Your task to perform on an android device: add a contact in the contacts app Image 0: 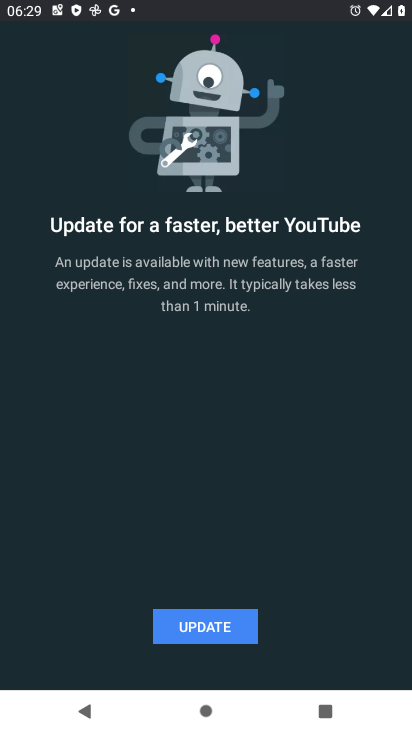
Step 0: press back button
Your task to perform on an android device: add a contact in the contacts app Image 1: 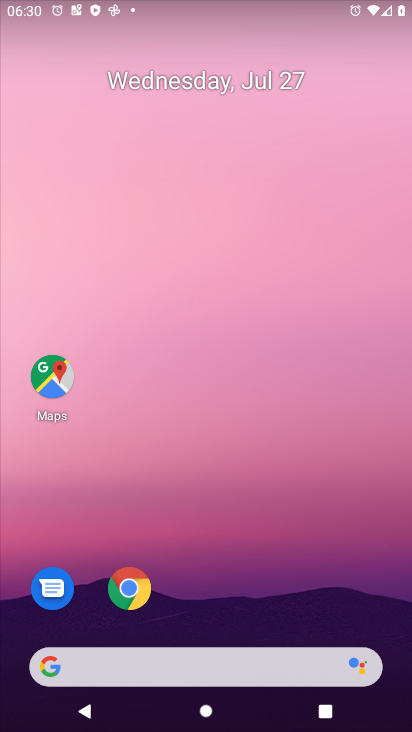
Step 1: drag from (188, 420) to (182, 125)
Your task to perform on an android device: add a contact in the contacts app Image 2: 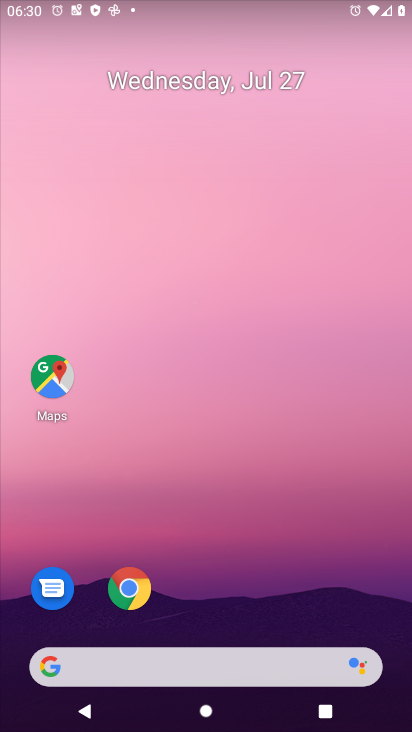
Step 2: drag from (155, 475) to (131, 79)
Your task to perform on an android device: add a contact in the contacts app Image 3: 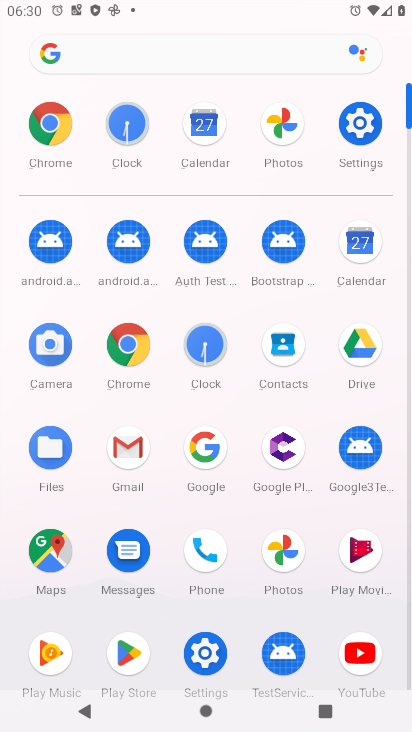
Step 3: click (282, 359)
Your task to perform on an android device: add a contact in the contacts app Image 4: 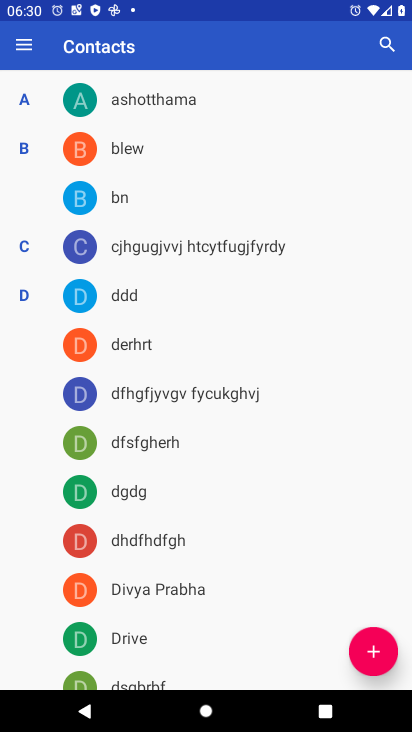
Step 4: click (363, 648)
Your task to perform on an android device: add a contact in the contacts app Image 5: 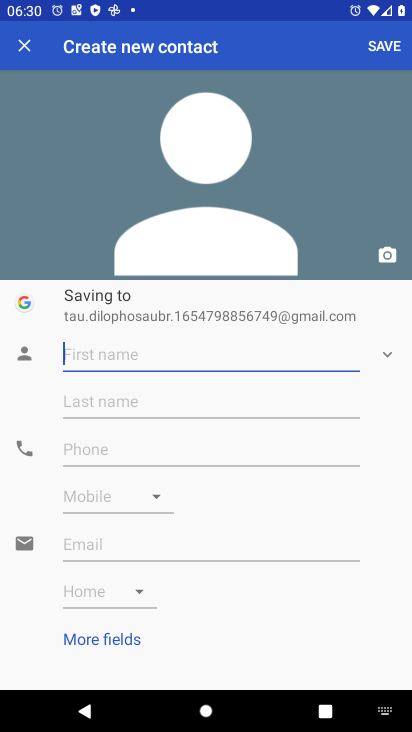
Step 5: type "Naman"
Your task to perform on an android device: add a contact in the contacts app Image 6: 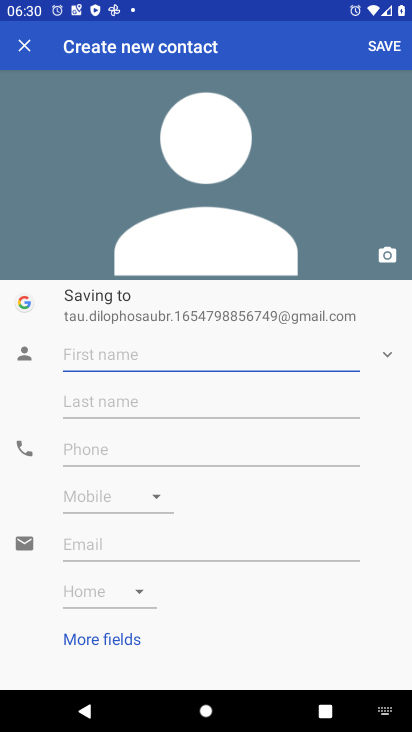
Step 6: click (206, 434)
Your task to perform on an android device: add a contact in the contacts app Image 7: 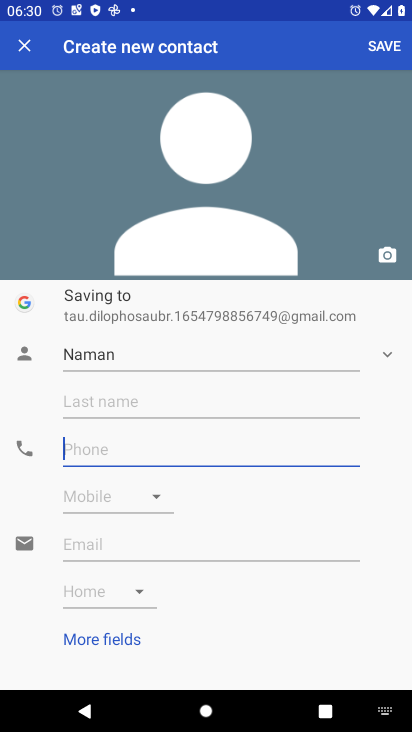
Step 7: type "6789009876"
Your task to perform on an android device: add a contact in the contacts app Image 8: 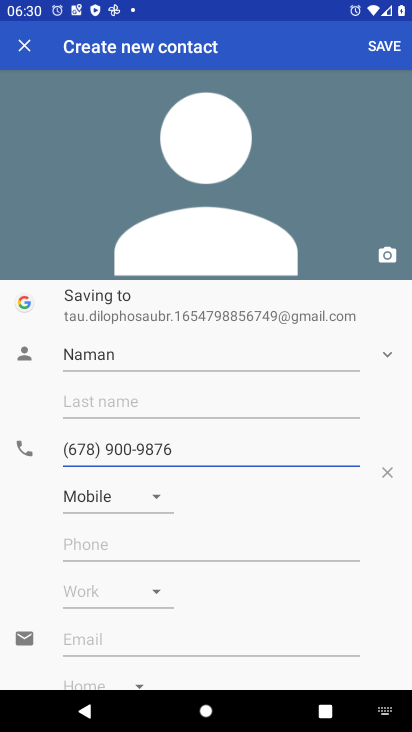
Step 8: click (391, 52)
Your task to perform on an android device: add a contact in the contacts app Image 9: 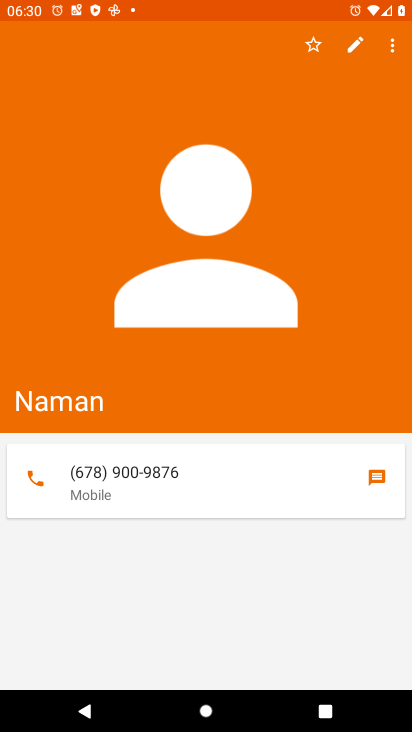
Step 9: task complete